Your task to perform on an android device: turn off location history Image 0: 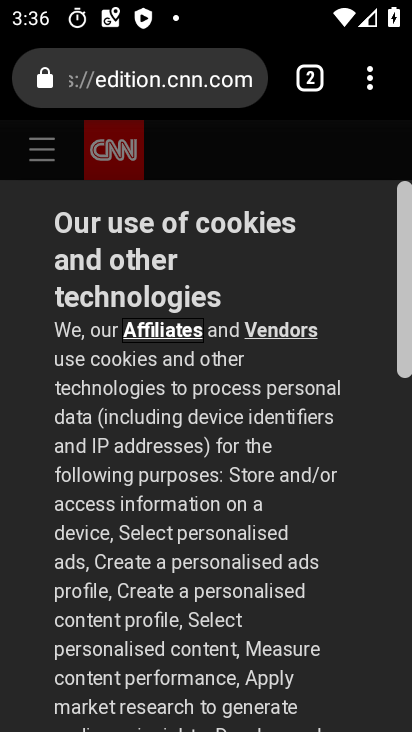
Step 0: press home button
Your task to perform on an android device: turn off location history Image 1: 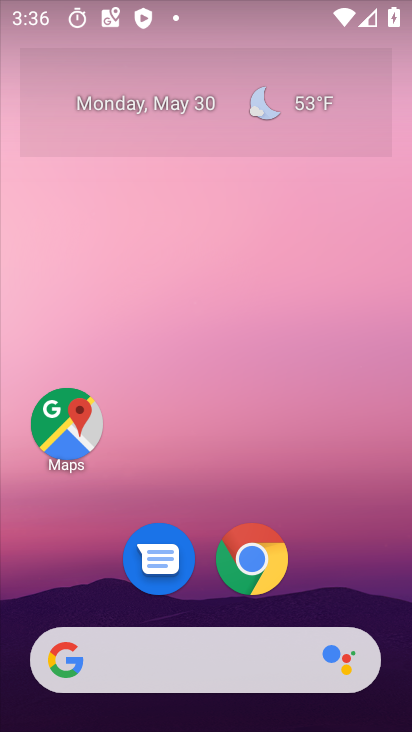
Step 1: drag from (178, 718) to (182, 61)
Your task to perform on an android device: turn off location history Image 2: 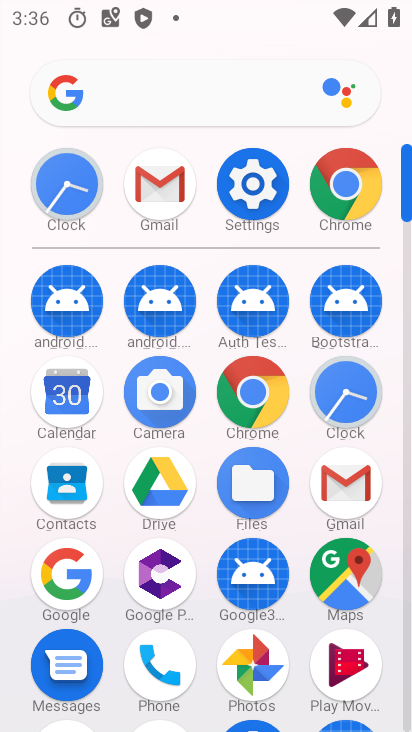
Step 2: click (251, 177)
Your task to perform on an android device: turn off location history Image 3: 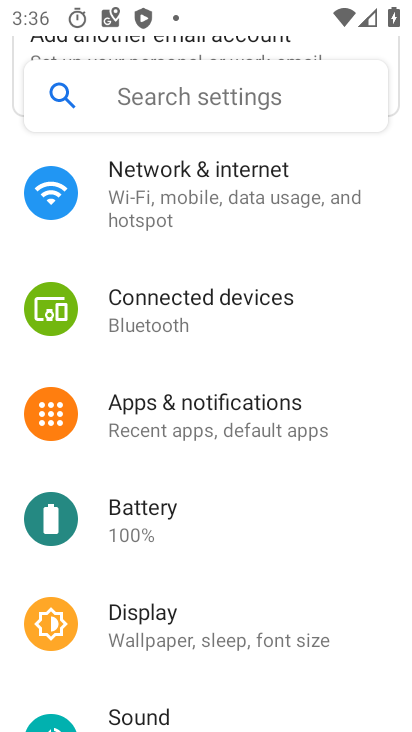
Step 3: drag from (168, 669) to (198, 241)
Your task to perform on an android device: turn off location history Image 4: 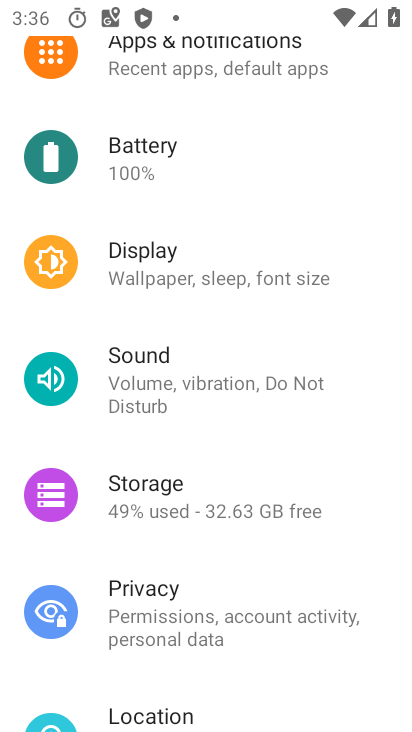
Step 4: click (135, 717)
Your task to perform on an android device: turn off location history Image 5: 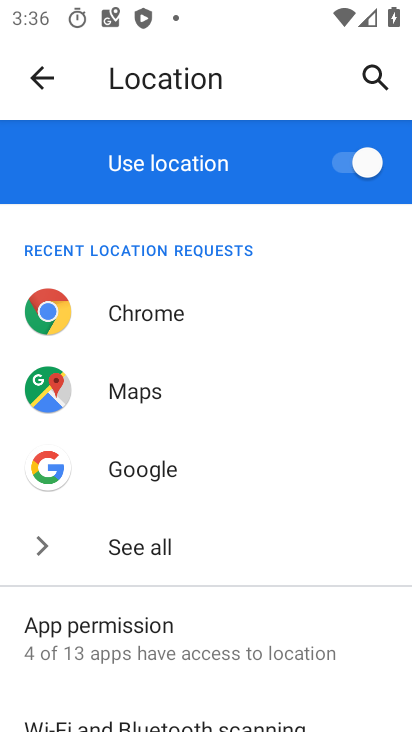
Step 5: drag from (202, 700) to (210, 281)
Your task to perform on an android device: turn off location history Image 6: 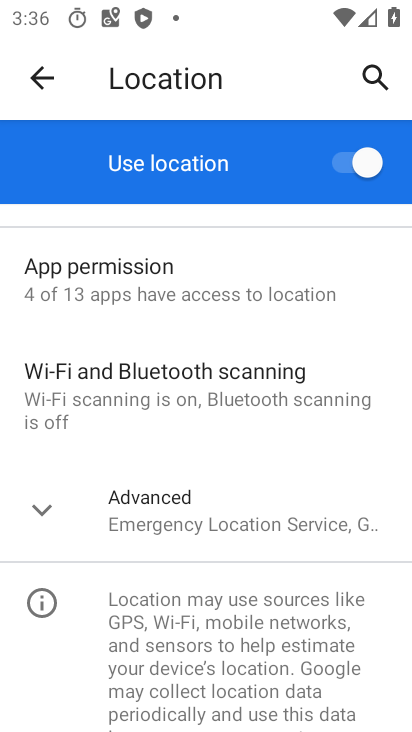
Step 6: click (187, 512)
Your task to perform on an android device: turn off location history Image 7: 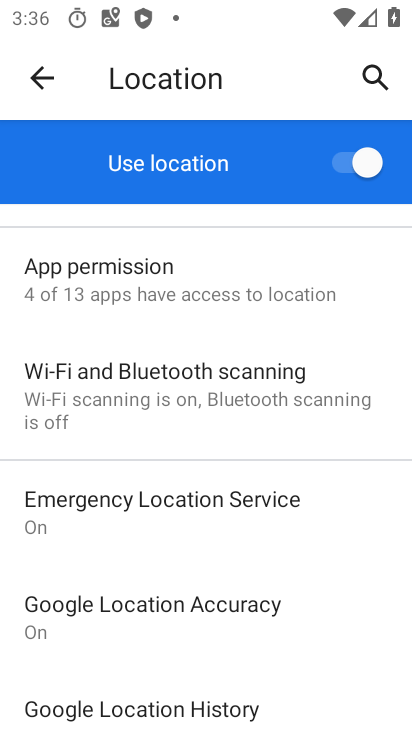
Step 7: click (160, 707)
Your task to perform on an android device: turn off location history Image 8: 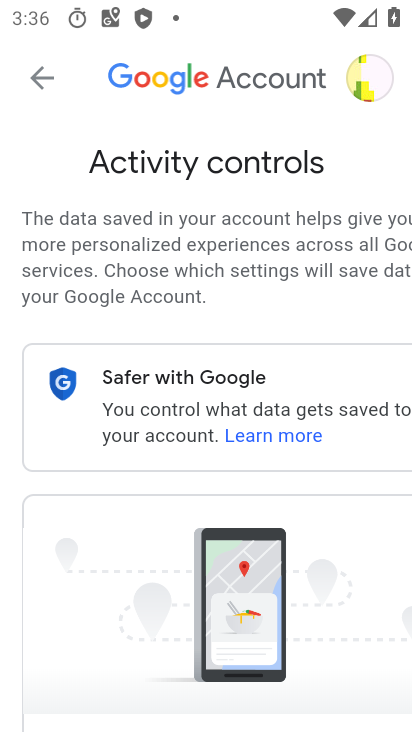
Step 8: drag from (240, 663) to (225, 313)
Your task to perform on an android device: turn off location history Image 9: 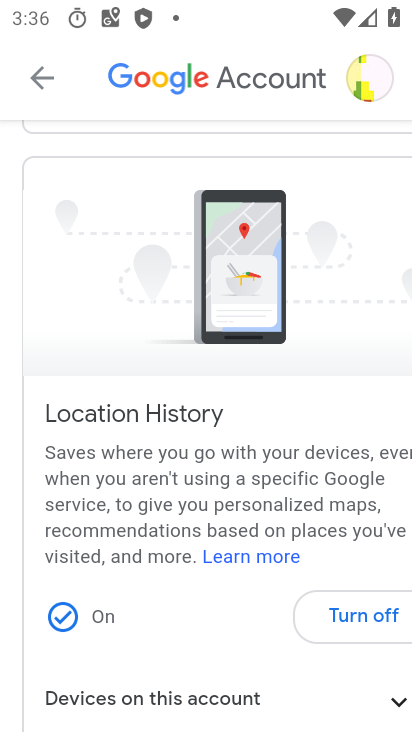
Step 9: click (347, 613)
Your task to perform on an android device: turn off location history Image 10: 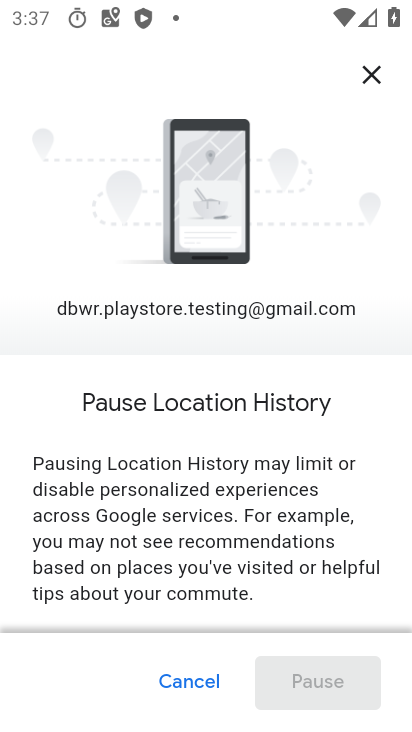
Step 10: drag from (327, 623) to (318, 73)
Your task to perform on an android device: turn off location history Image 11: 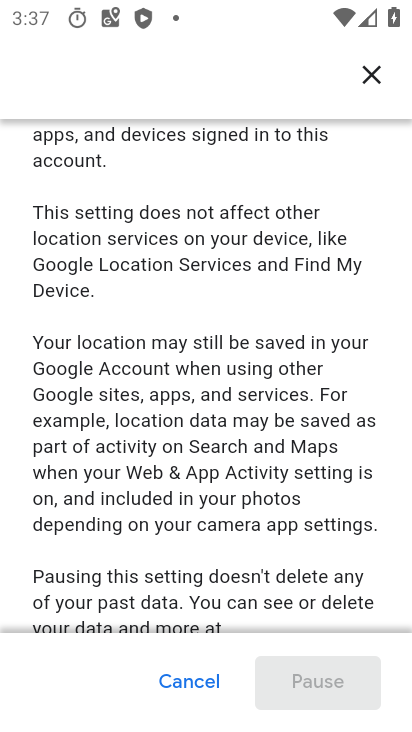
Step 11: drag from (274, 613) to (276, 537)
Your task to perform on an android device: turn off location history Image 12: 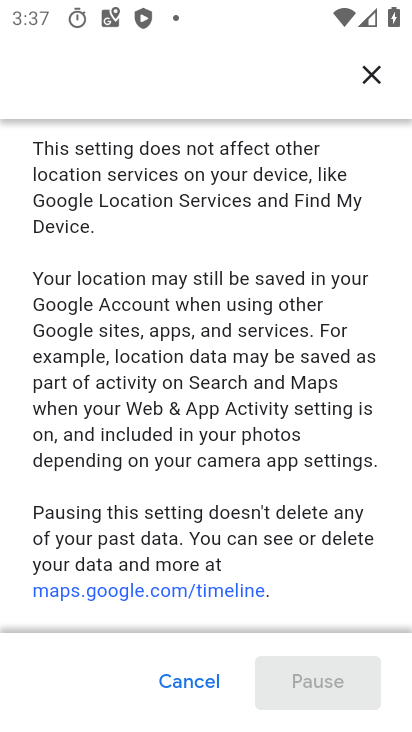
Step 12: drag from (277, 203) to (277, 162)
Your task to perform on an android device: turn off location history Image 13: 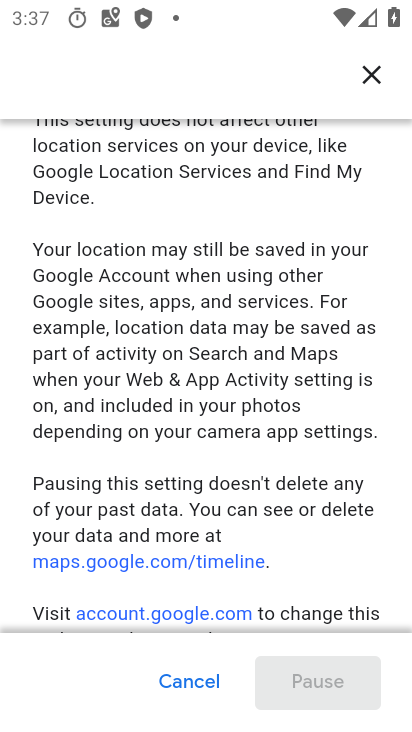
Step 13: drag from (286, 564) to (307, 54)
Your task to perform on an android device: turn off location history Image 14: 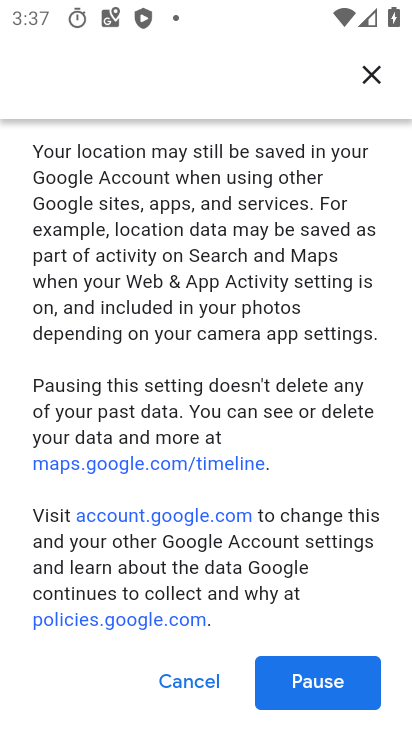
Step 14: click (317, 683)
Your task to perform on an android device: turn off location history Image 15: 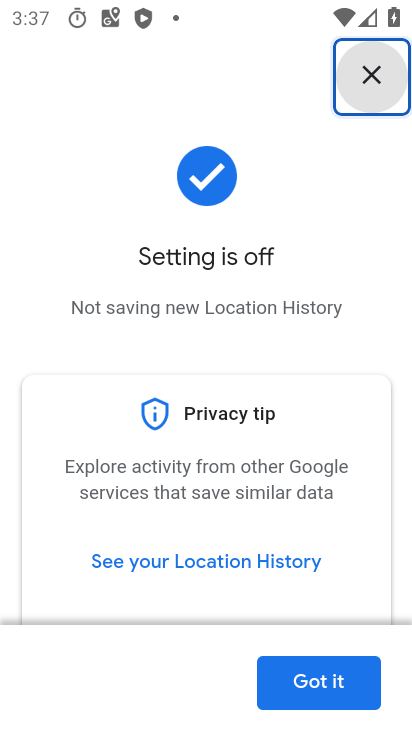
Step 15: click (317, 683)
Your task to perform on an android device: turn off location history Image 16: 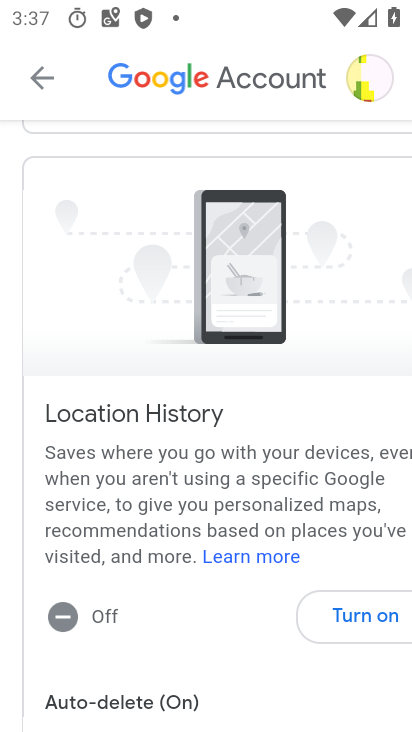
Step 16: task complete